Your task to perform on an android device: open the mobile data screen to see how much data has been used Image 0: 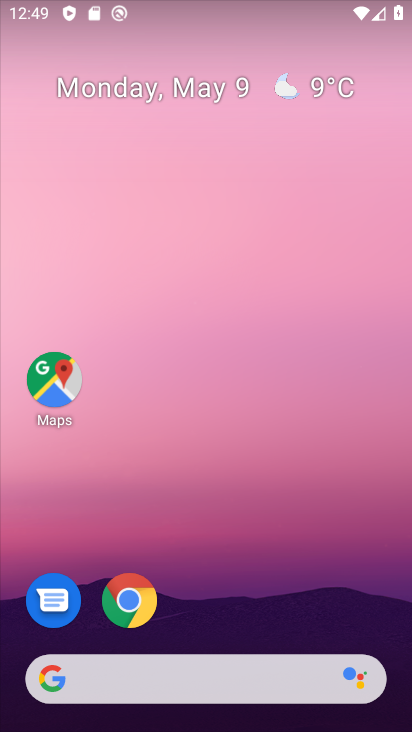
Step 0: drag from (209, 641) to (336, 287)
Your task to perform on an android device: open the mobile data screen to see how much data has been used Image 1: 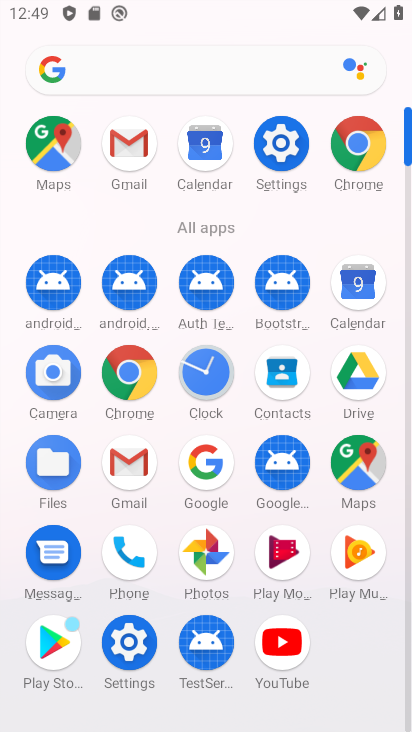
Step 1: click (336, 287)
Your task to perform on an android device: open the mobile data screen to see how much data has been used Image 2: 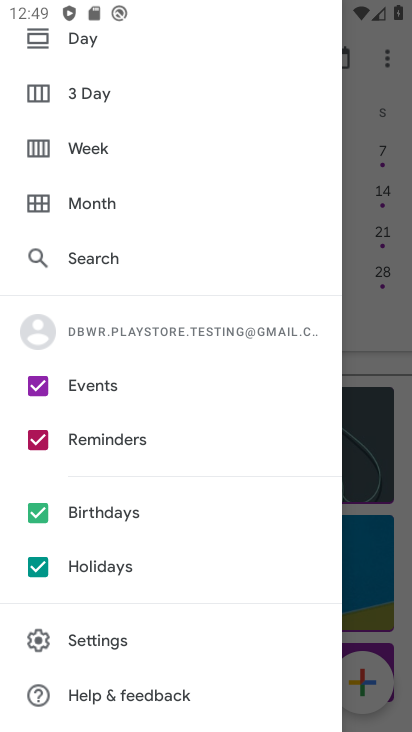
Step 2: press back button
Your task to perform on an android device: open the mobile data screen to see how much data has been used Image 3: 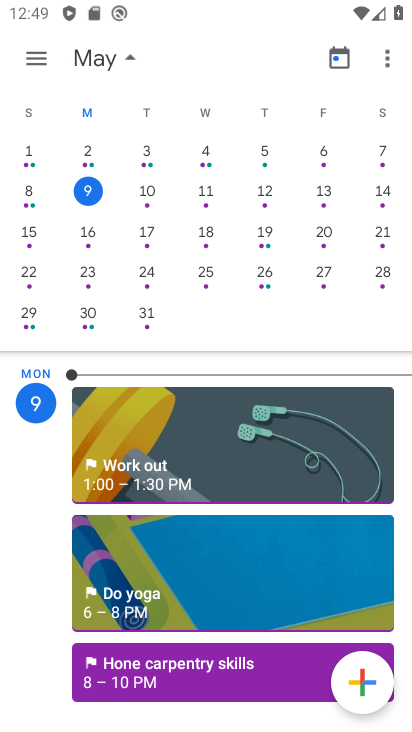
Step 3: press back button
Your task to perform on an android device: open the mobile data screen to see how much data has been used Image 4: 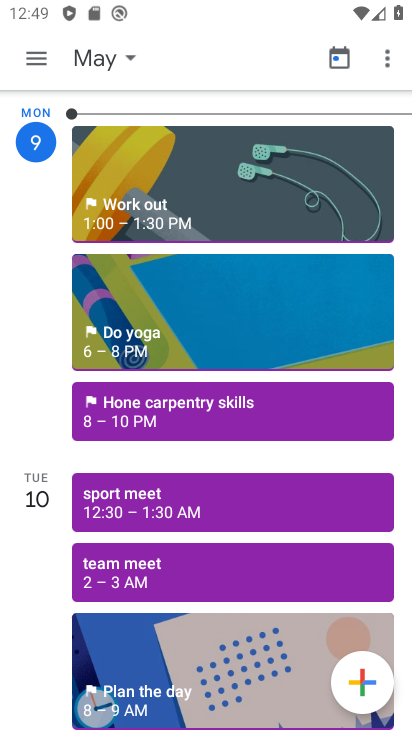
Step 4: press back button
Your task to perform on an android device: open the mobile data screen to see how much data has been used Image 5: 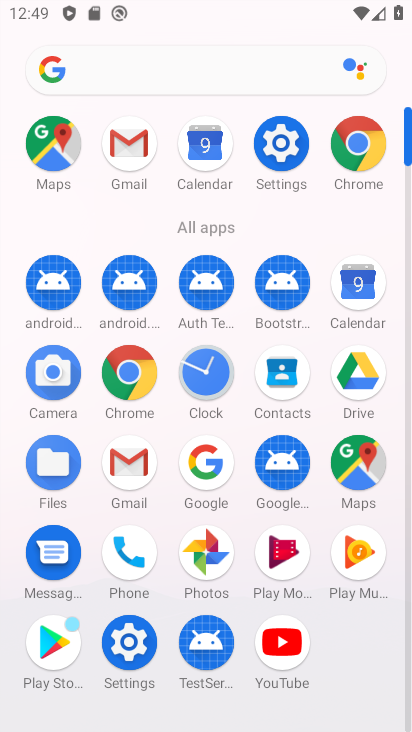
Step 5: click (117, 638)
Your task to perform on an android device: open the mobile data screen to see how much data has been used Image 6: 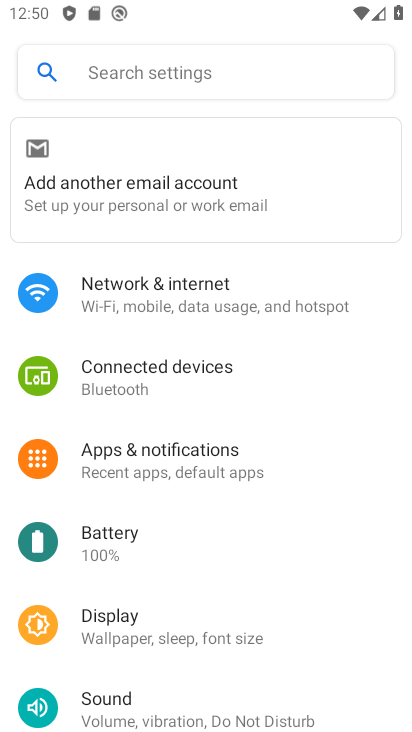
Step 6: click (203, 303)
Your task to perform on an android device: open the mobile data screen to see how much data has been used Image 7: 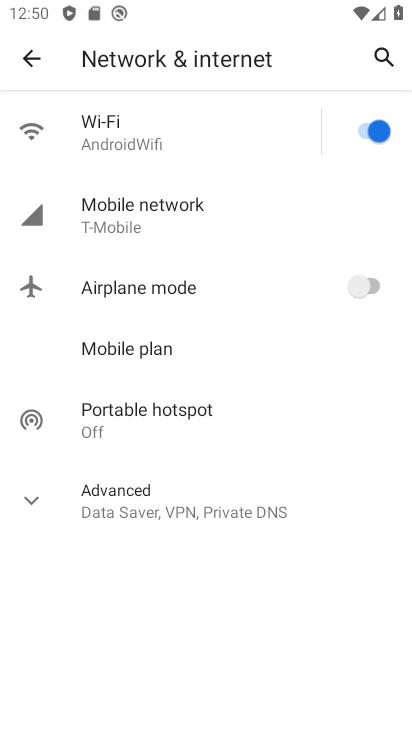
Step 7: click (175, 234)
Your task to perform on an android device: open the mobile data screen to see how much data has been used Image 8: 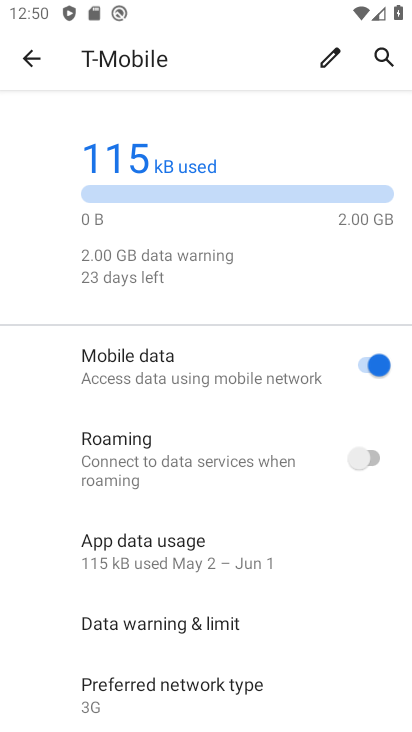
Step 8: click (214, 542)
Your task to perform on an android device: open the mobile data screen to see how much data has been used Image 9: 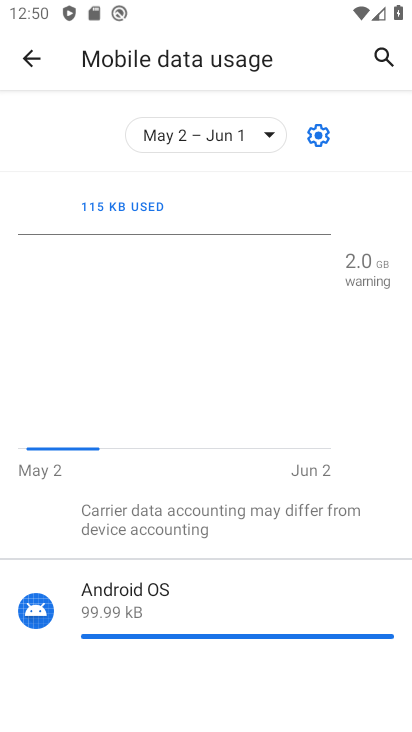
Step 9: task complete